Your task to perform on an android device: Go to Reddit.com Image 0: 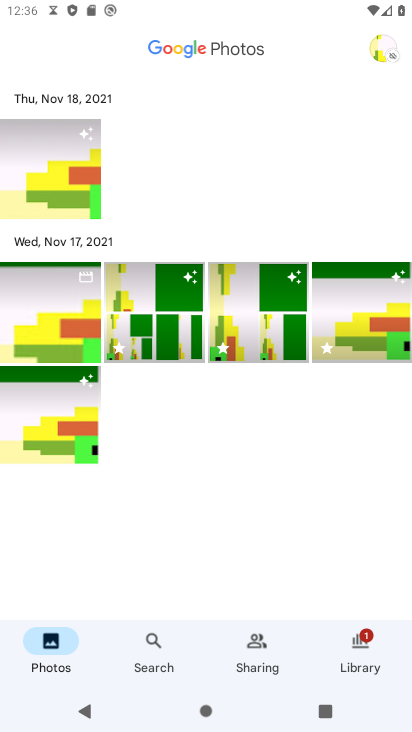
Step 0: press home button
Your task to perform on an android device: Go to Reddit.com Image 1: 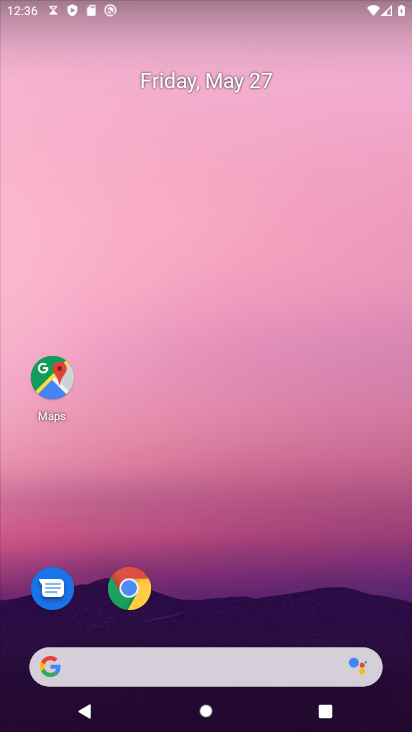
Step 1: drag from (205, 632) to (178, 0)
Your task to perform on an android device: Go to Reddit.com Image 2: 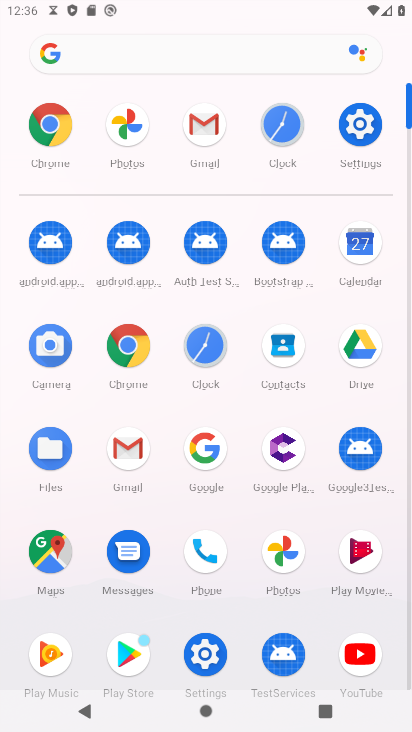
Step 2: click (48, 116)
Your task to perform on an android device: Go to Reddit.com Image 3: 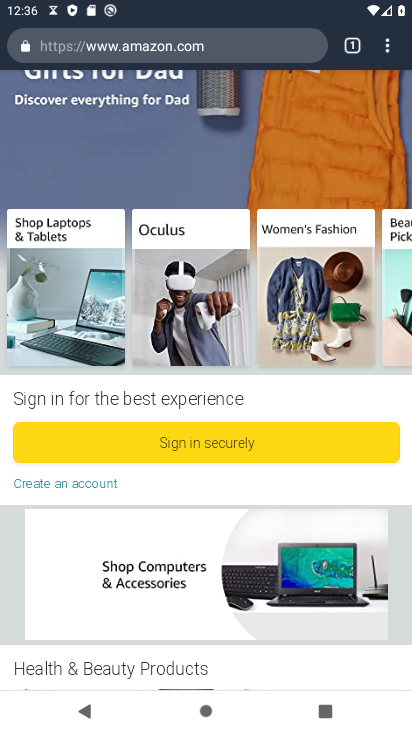
Step 3: click (352, 45)
Your task to perform on an android device: Go to Reddit.com Image 4: 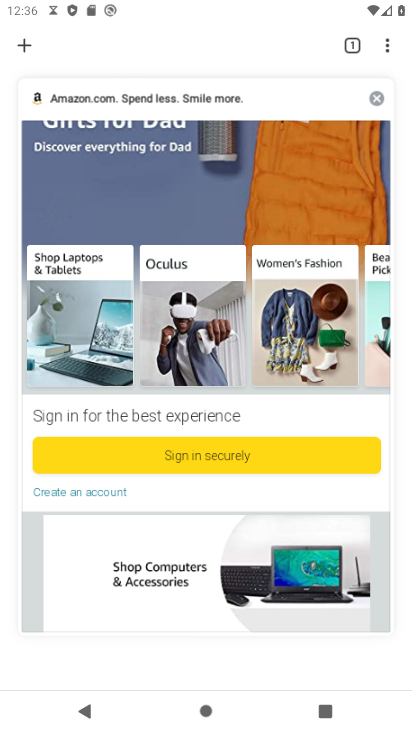
Step 4: click (19, 40)
Your task to perform on an android device: Go to Reddit.com Image 5: 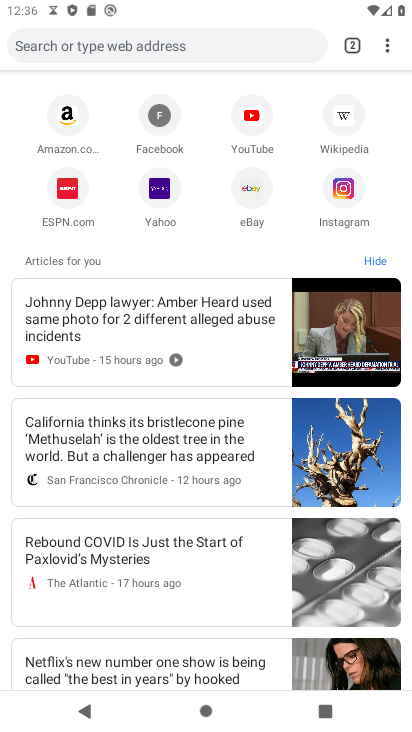
Step 5: click (87, 37)
Your task to perform on an android device: Go to Reddit.com Image 6: 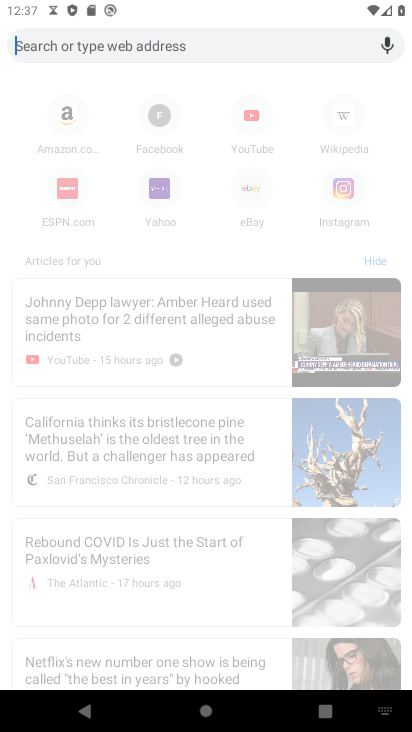
Step 6: type "reddit"
Your task to perform on an android device: Go to Reddit.com Image 7: 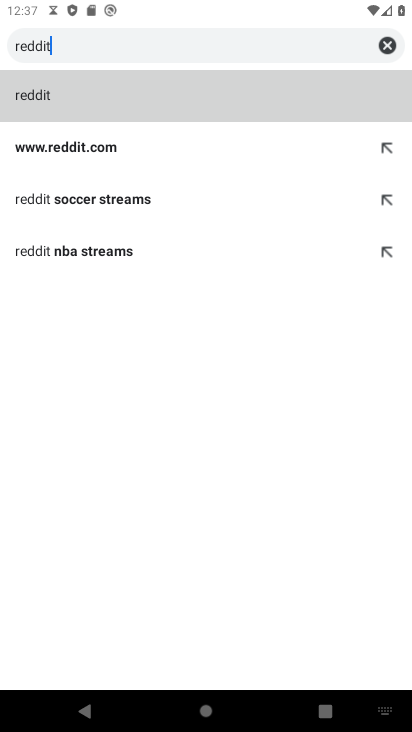
Step 7: click (73, 92)
Your task to perform on an android device: Go to Reddit.com Image 8: 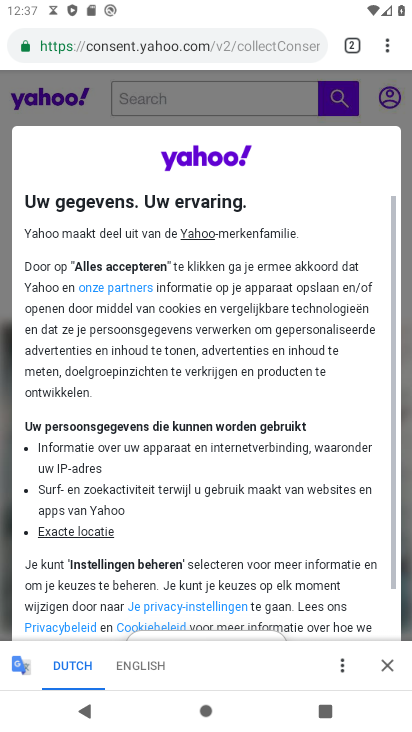
Step 8: drag from (232, 614) to (197, 164)
Your task to perform on an android device: Go to Reddit.com Image 9: 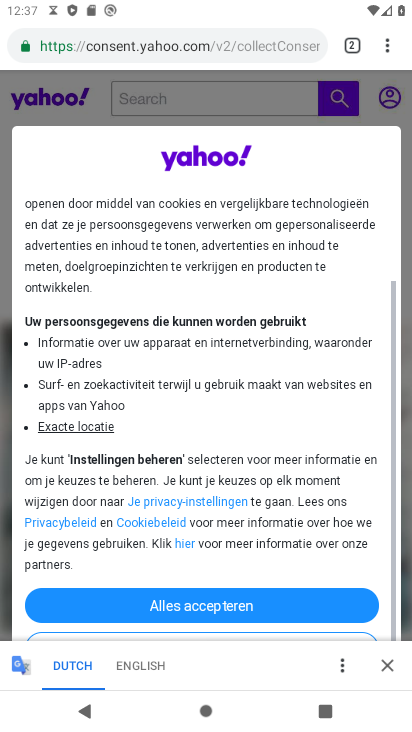
Step 9: click (203, 601)
Your task to perform on an android device: Go to Reddit.com Image 10: 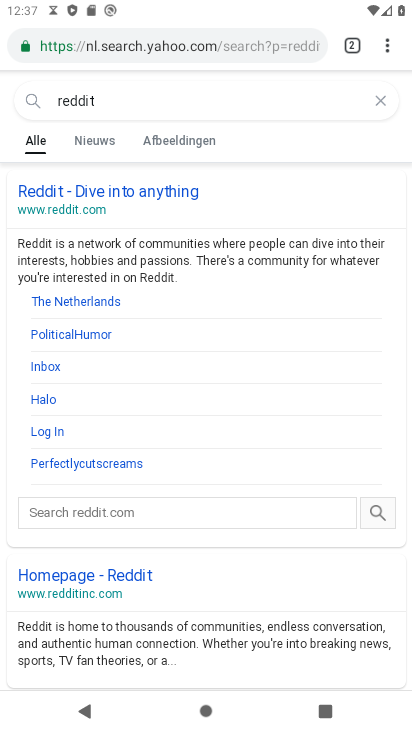
Step 10: click (119, 190)
Your task to perform on an android device: Go to Reddit.com Image 11: 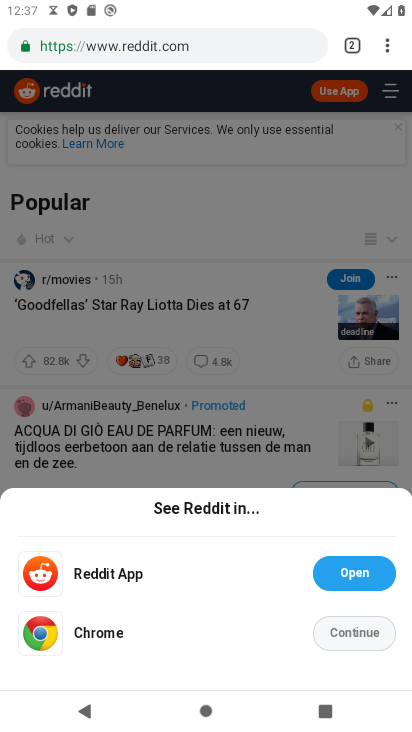
Step 11: drag from (222, 261) to (221, 222)
Your task to perform on an android device: Go to Reddit.com Image 12: 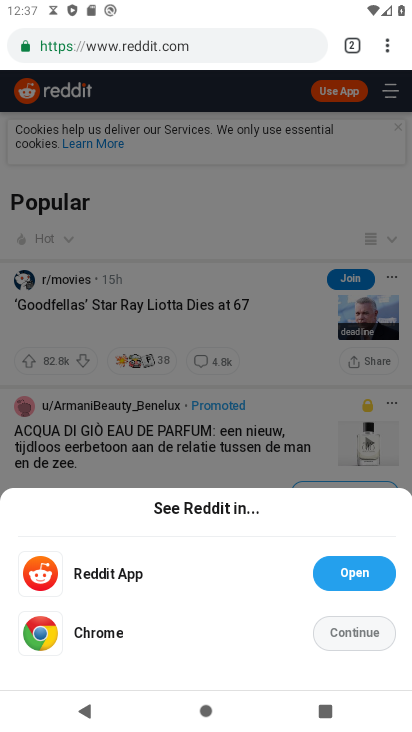
Step 12: click (349, 635)
Your task to perform on an android device: Go to Reddit.com Image 13: 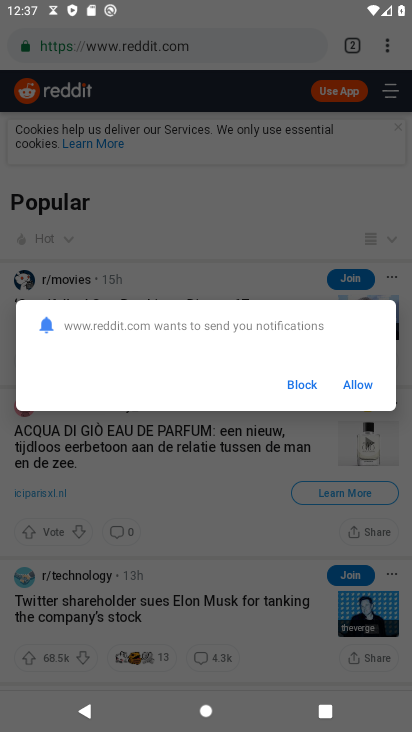
Step 13: click (361, 387)
Your task to perform on an android device: Go to Reddit.com Image 14: 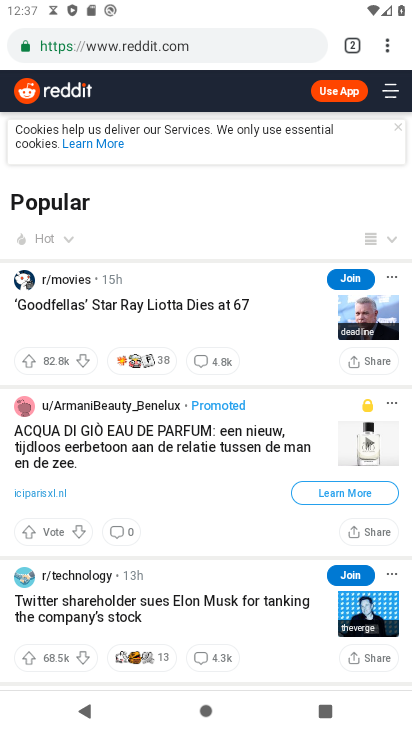
Step 14: task complete